Your task to perform on an android device: Open battery settings Image 0: 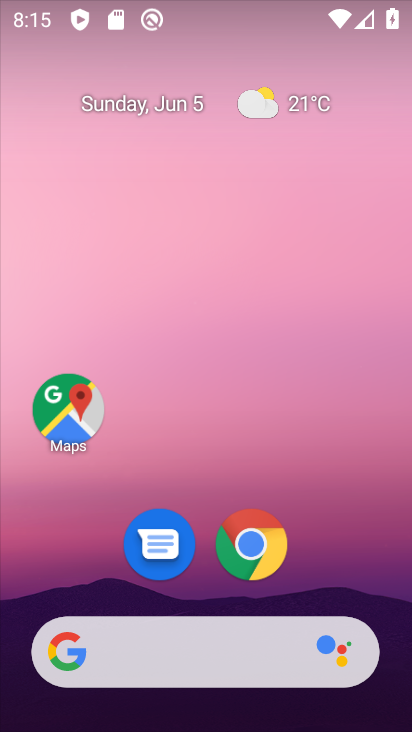
Step 0: drag from (395, 642) to (407, 137)
Your task to perform on an android device: Open battery settings Image 1: 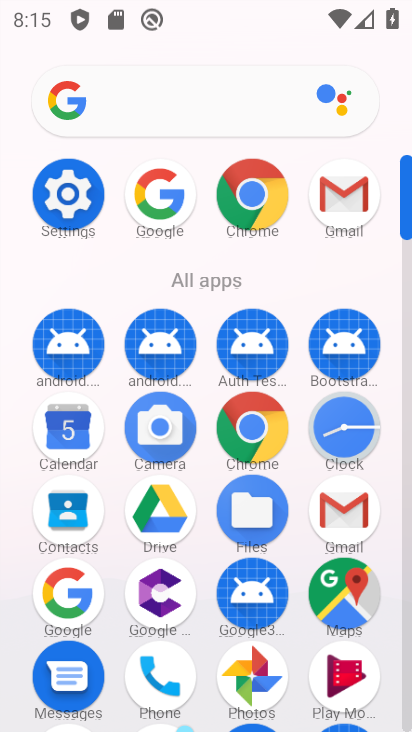
Step 1: click (53, 198)
Your task to perform on an android device: Open battery settings Image 2: 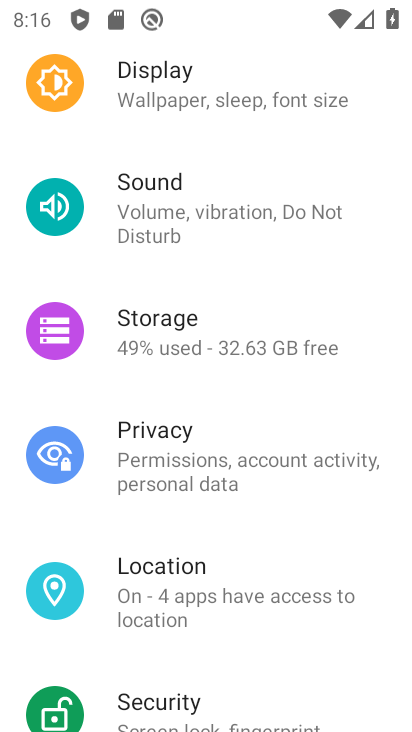
Step 2: drag from (246, 159) to (272, 549)
Your task to perform on an android device: Open battery settings Image 3: 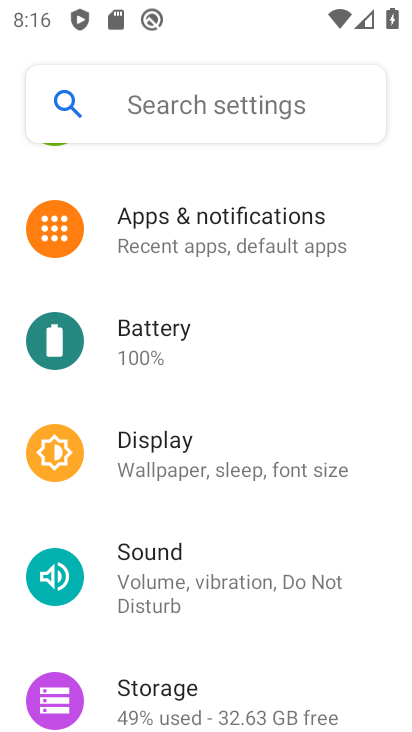
Step 3: click (151, 329)
Your task to perform on an android device: Open battery settings Image 4: 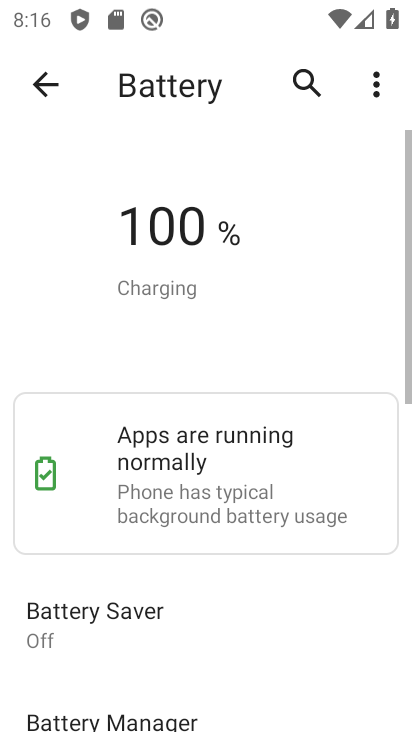
Step 4: task complete